Your task to perform on an android device: Open the Play Movies app and select the watchlist tab. Image 0: 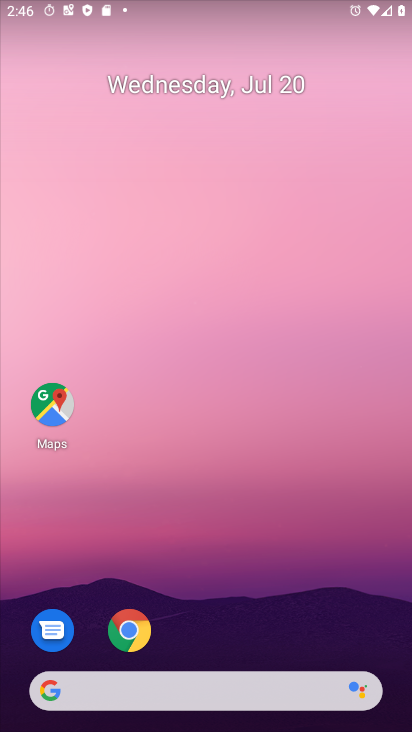
Step 0: drag from (155, 655) to (271, 144)
Your task to perform on an android device: Open the Play Movies app and select the watchlist tab. Image 1: 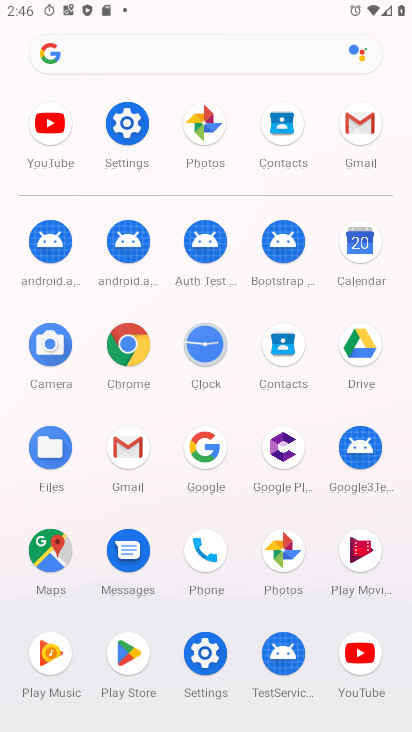
Step 1: click (355, 558)
Your task to perform on an android device: Open the Play Movies app and select the watchlist tab. Image 2: 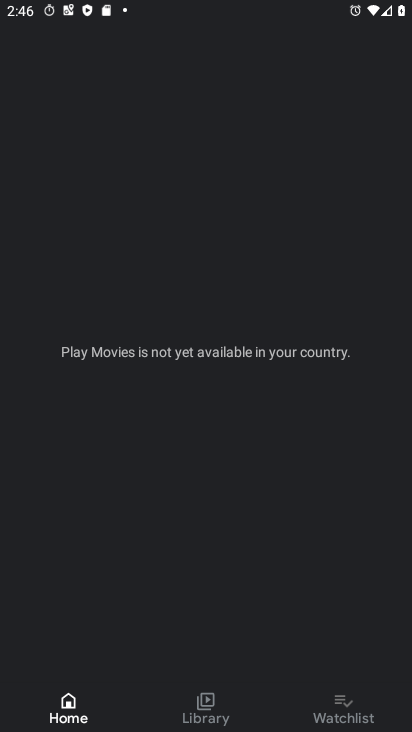
Step 2: click (349, 706)
Your task to perform on an android device: Open the Play Movies app and select the watchlist tab. Image 3: 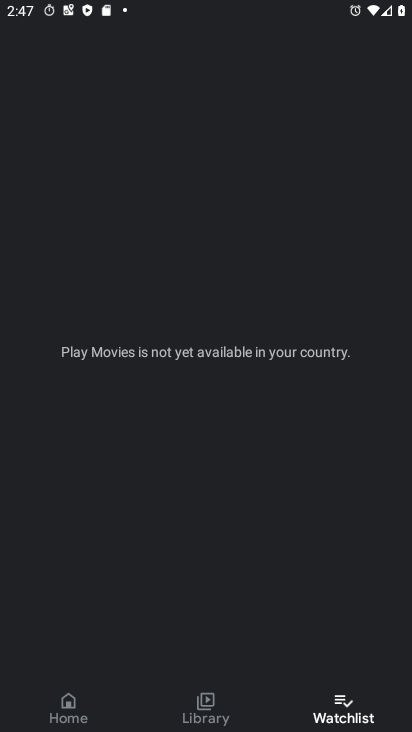
Step 3: task complete